Your task to perform on an android device: change the upload size in google photos Image 0: 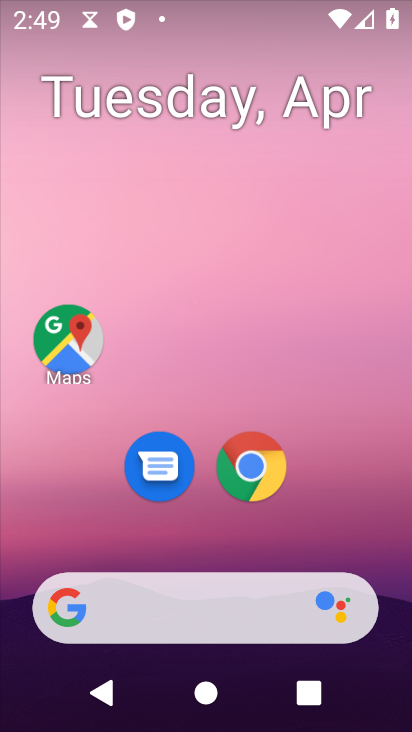
Step 0: drag from (312, 257) to (281, 98)
Your task to perform on an android device: change the upload size in google photos Image 1: 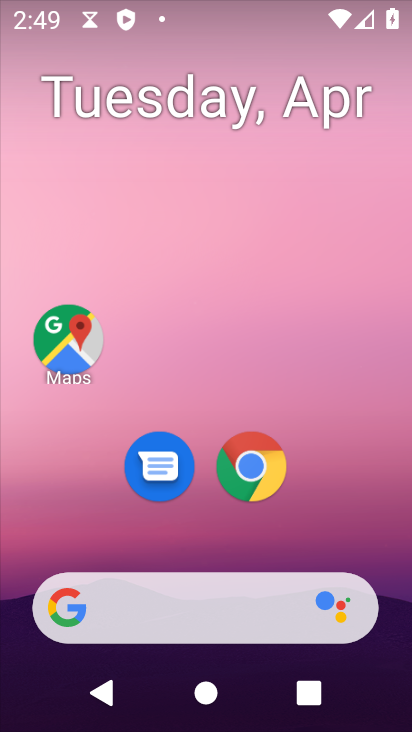
Step 1: drag from (393, 629) to (237, 30)
Your task to perform on an android device: change the upload size in google photos Image 2: 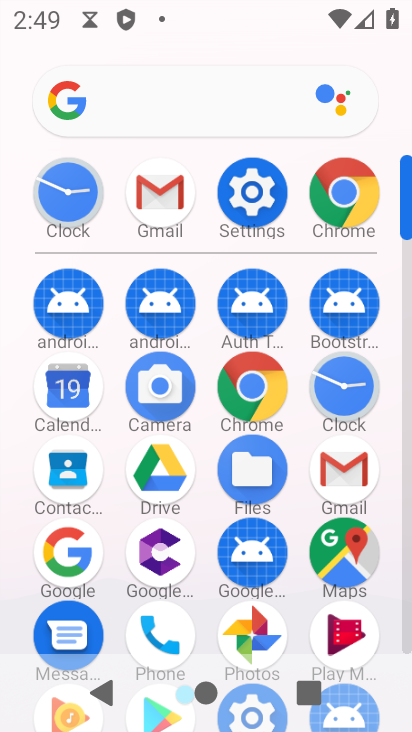
Step 2: drag from (0, 552) to (0, 335)
Your task to perform on an android device: change the upload size in google photos Image 3: 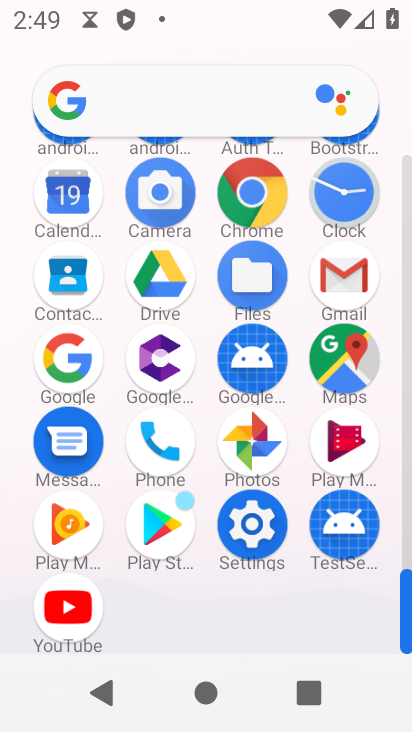
Step 3: drag from (18, 248) to (11, 441)
Your task to perform on an android device: change the upload size in google photos Image 4: 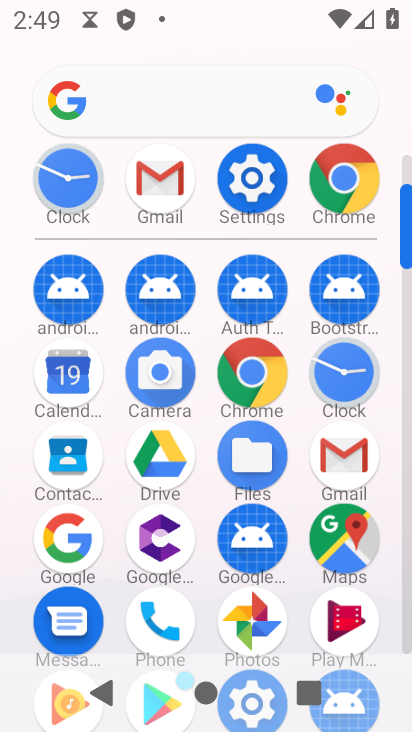
Step 4: drag from (10, 394) to (15, 193)
Your task to perform on an android device: change the upload size in google photos Image 5: 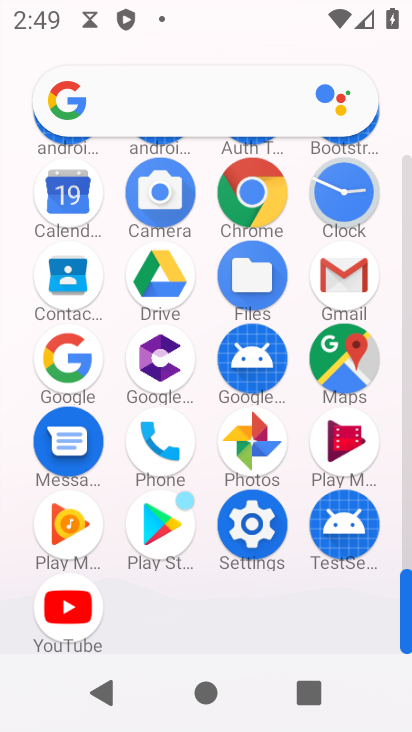
Step 5: drag from (10, 324) to (16, 107)
Your task to perform on an android device: change the upload size in google photos Image 6: 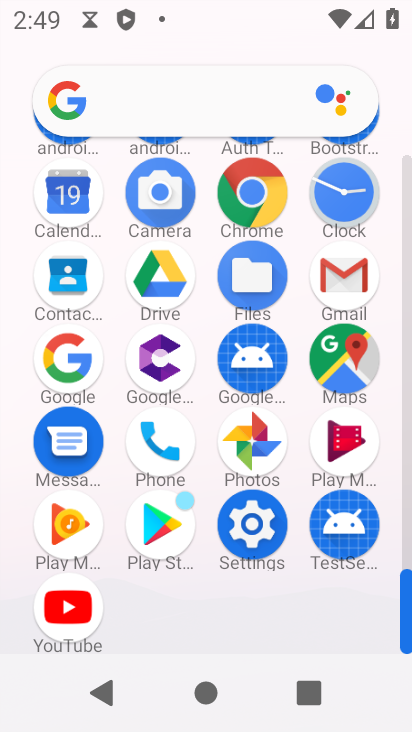
Step 6: drag from (16, 241) to (7, 387)
Your task to perform on an android device: change the upload size in google photos Image 7: 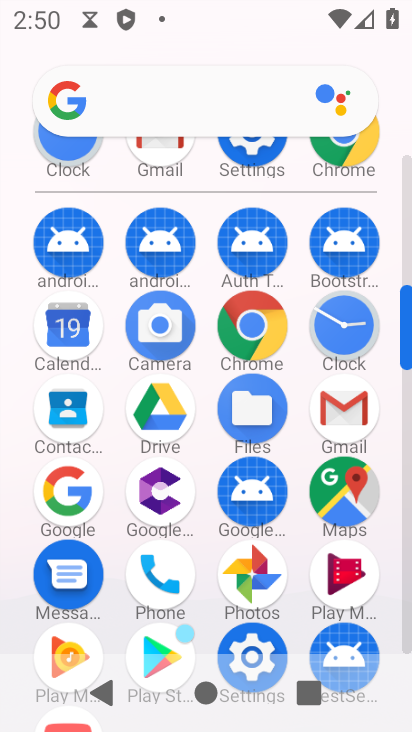
Step 7: click (248, 575)
Your task to perform on an android device: change the upload size in google photos Image 8: 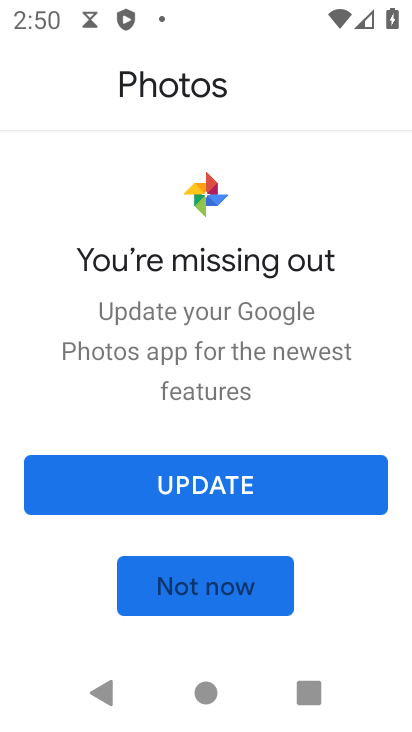
Step 8: click (230, 577)
Your task to perform on an android device: change the upload size in google photos Image 9: 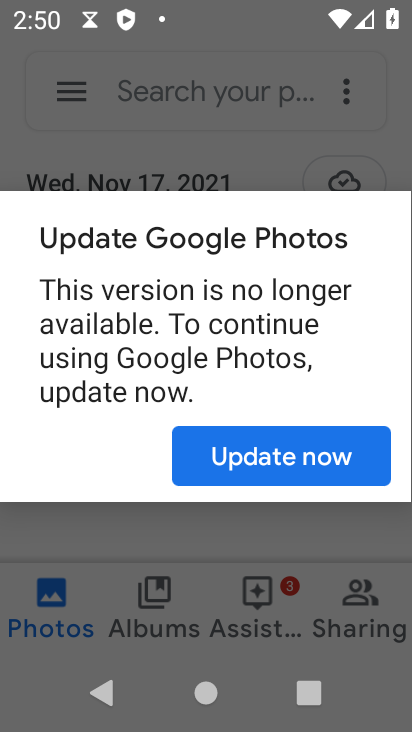
Step 9: click (306, 461)
Your task to perform on an android device: change the upload size in google photos Image 10: 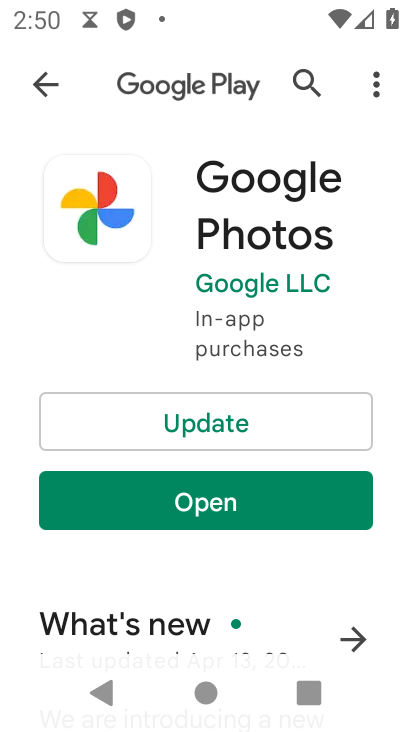
Step 10: click (223, 429)
Your task to perform on an android device: change the upload size in google photos Image 11: 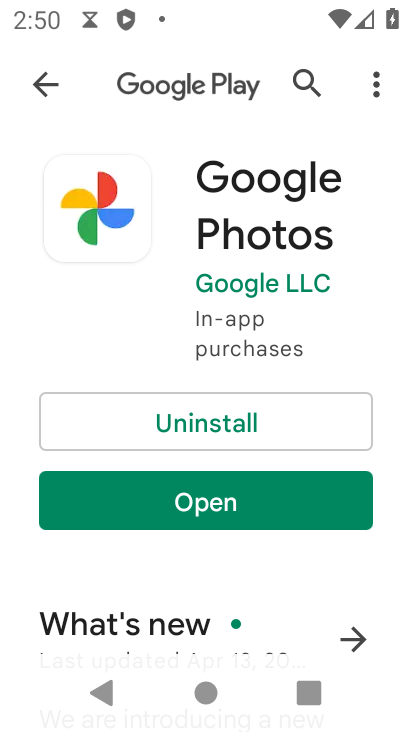
Step 11: click (253, 508)
Your task to perform on an android device: change the upload size in google photos Image 12: 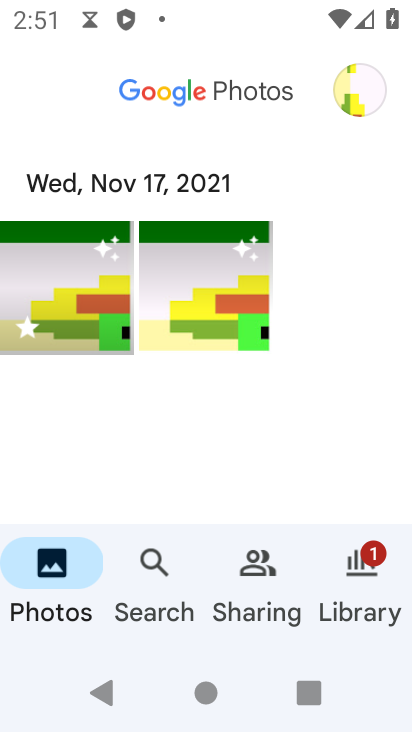
Step 12: click (374, 99)
Your task to perform on an android device: change the upload size in google photos Image 13: 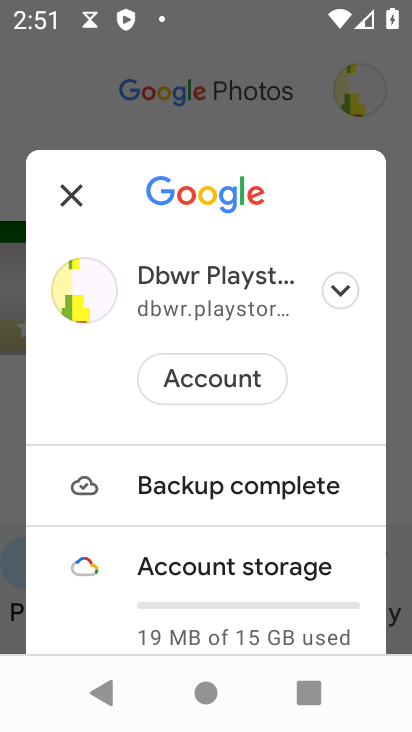
Step 13: drag from (251, 532) to (240, 211)
Your task to perform on an android device: change the upload size in google photos Image 14: 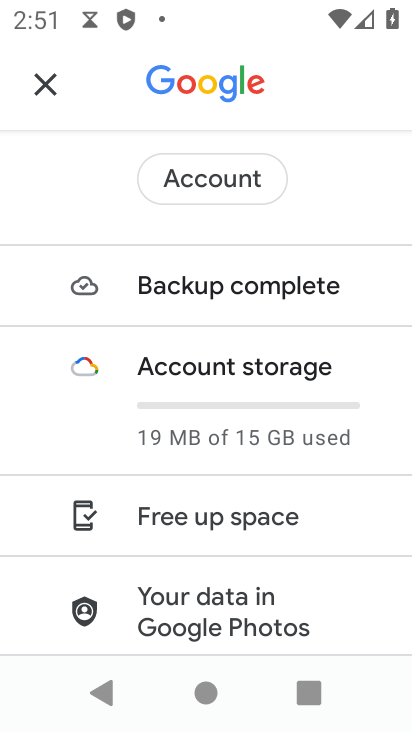
Step 14: drag from (240, 554) to (246, 230)
Your task to perform on an android device: change the upload size in google photos Image 15: 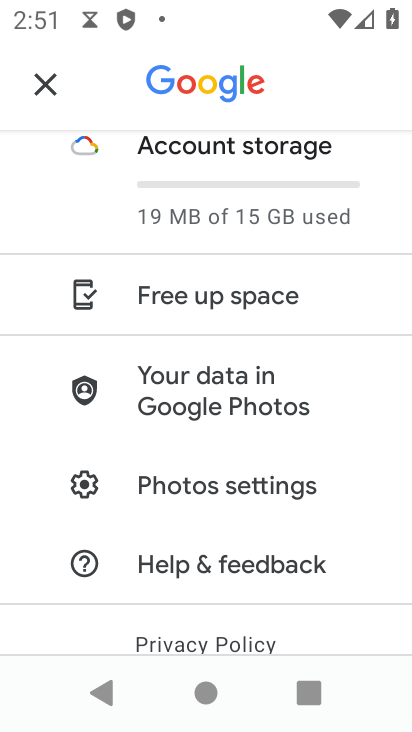
Step 15: drag from (235, 504) to (255, 239)
Your task to perform on an android device: change the upload size in google photos Image 16: 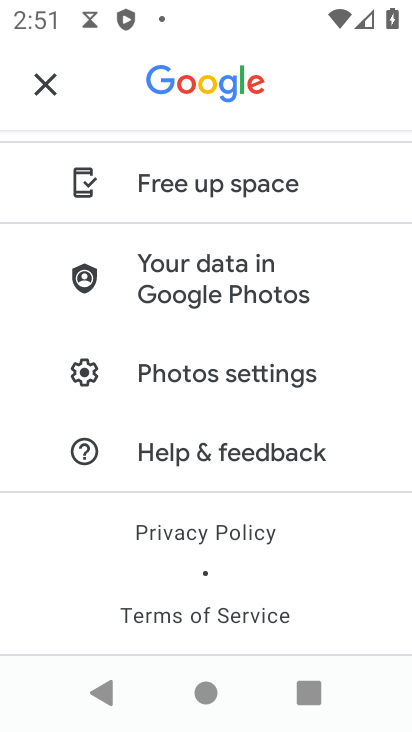
Step 16: click (212, 371)
Your task to perform on an android device: change the upload size in google photos Image 17: 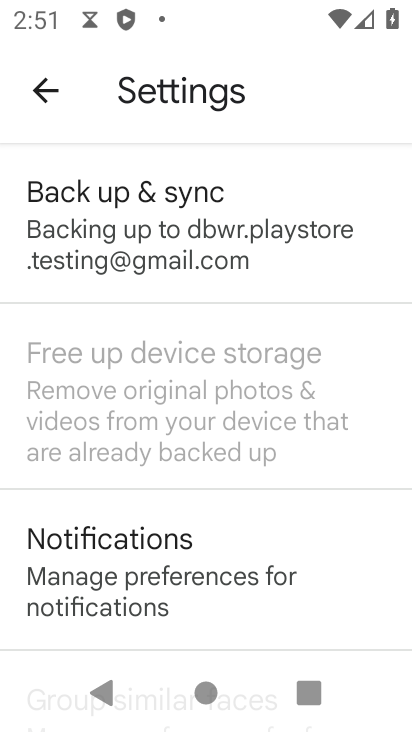
Step 17: drag from (200, 587) to (215, 173)
Your task to perform on an android device: change the upload size in google photos Image 18: 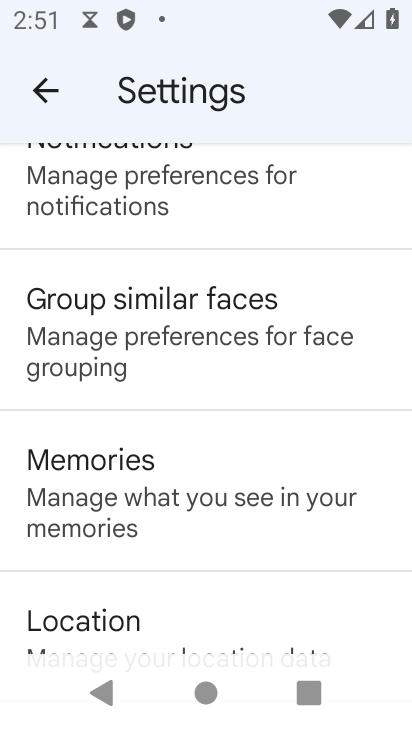
Step 18: drag from (204, 501) to (205, 168)
Your task to perform on an android device: change the upload size in google photos Image 19: 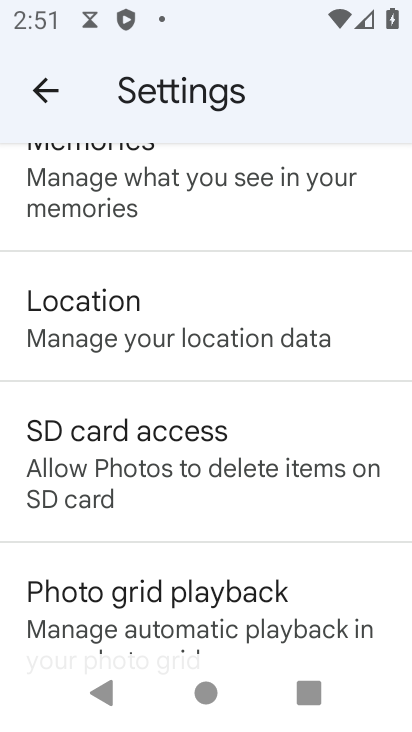
Step 19: drag from (168, 528) to (192, 173)
Your task to perform on an android device: change the upload size in google photos Image 20: 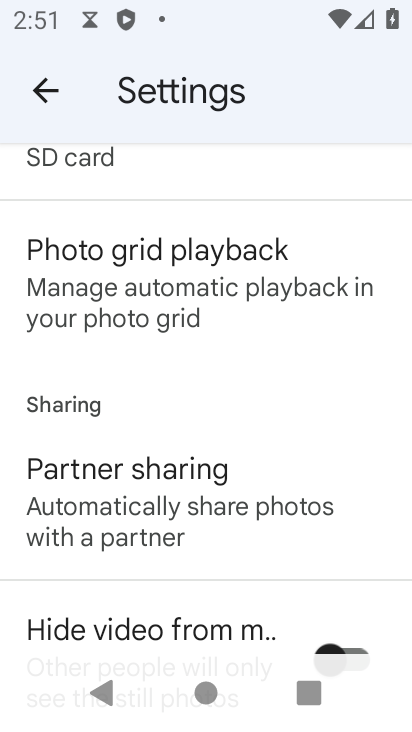
Step 20: drag from (190, 519) to (218, 189)
Your task to perform on an android device: change the upload size in google photos Image 21: 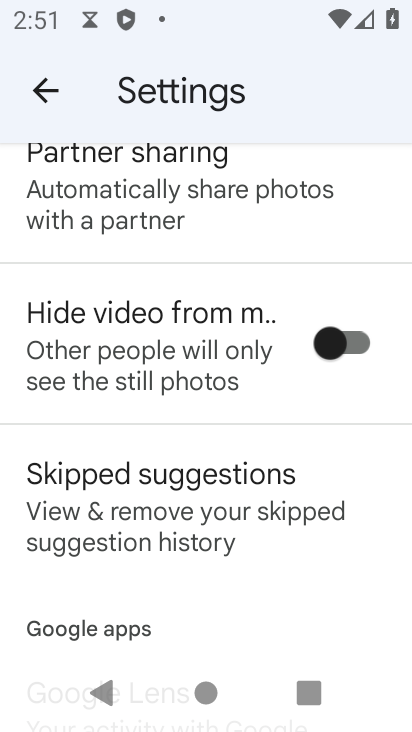
Step 21: drag from (174, 539) to (193, 169)
Your task to perform on an android device: change the upload size in google photos Image 22: 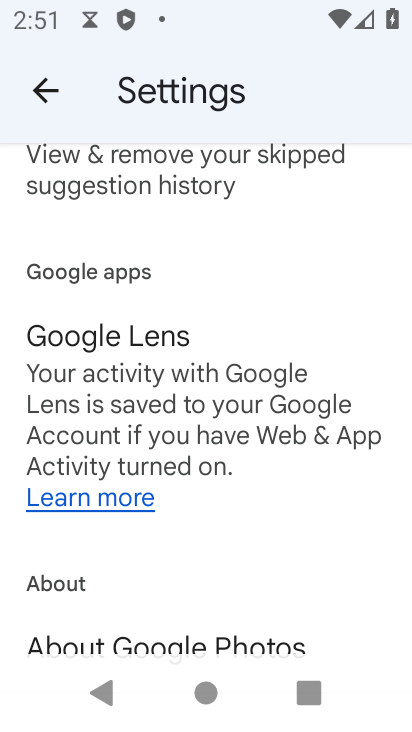
Step 22: drag from (182, 251) to (179, 618)
Your task to perform on an android device: change the upload size in google photos Image 23: 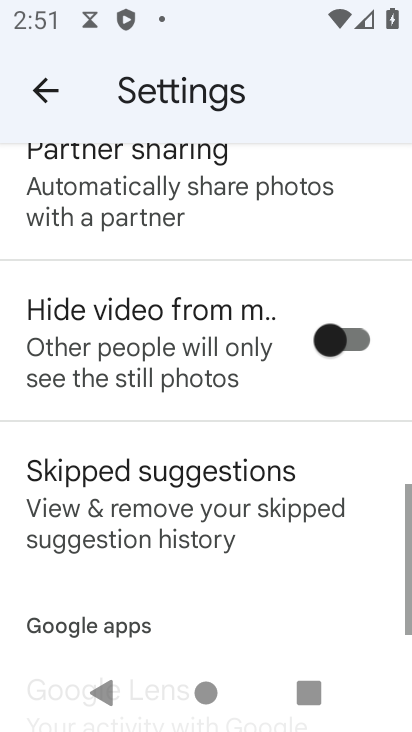
Step 23: drag from (184, 240) to (185, 598)
Your task to perform on an android device: change the upload size in google photos Image 24: 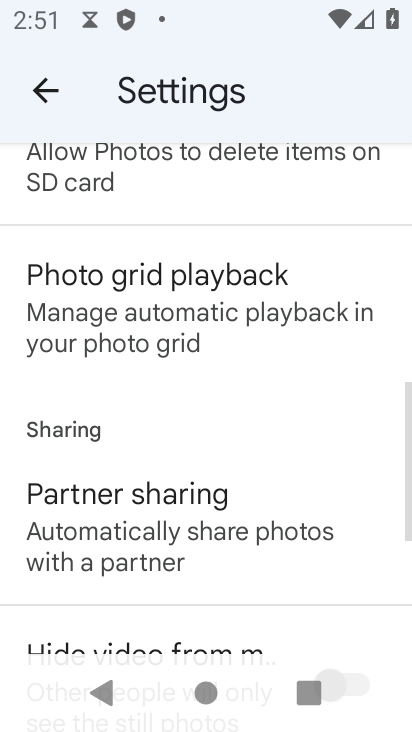
Step 24: drag from (173, 370) to (169, 642)
Your task to perform on an android device: change the upload size in google photos Image 25: 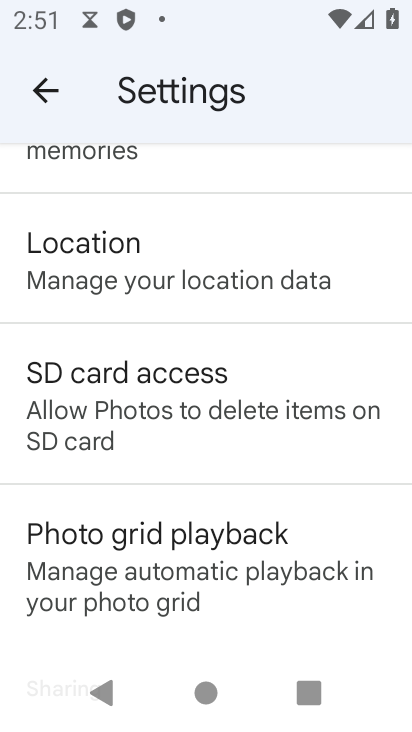
Step 25: drag from (173, 345) to (161, 592)
Your task to perform on an android device: change the upload size in google photos Image 26: 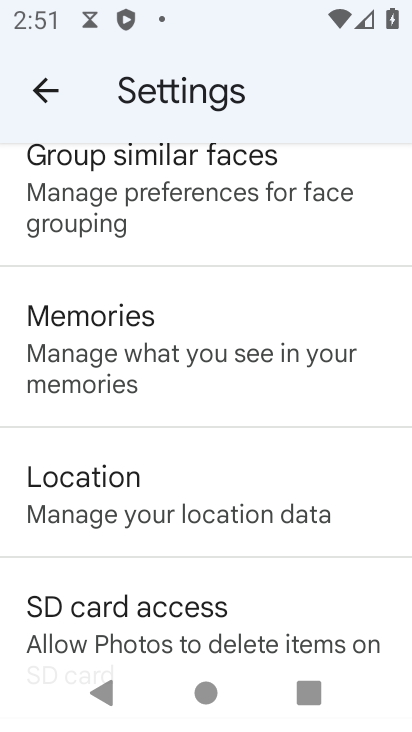
Step 26: drag from (181, 284) to (175, 483)
Your task to perform on an android device: change the upload size in google photos Image 27: 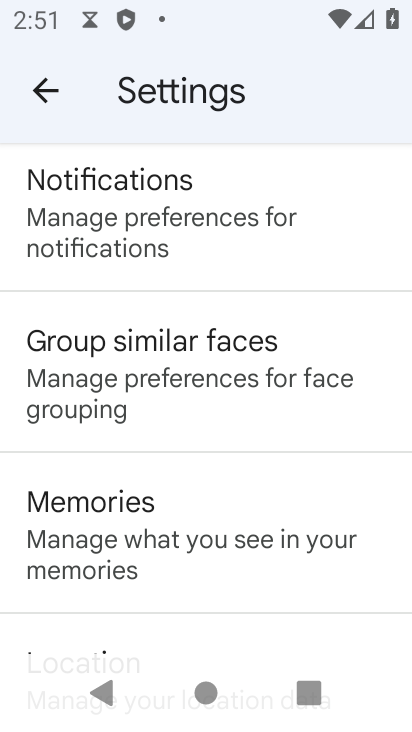
Step 27: drag from (180, 201) to (172, 538)
Your task to perform on an android device: change the upload size in google photos Image 28: 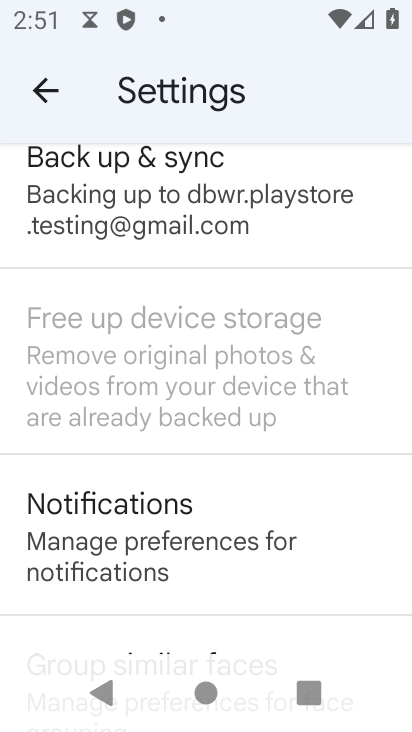
Step 28: drag from (179, 207) to (172, 442)
Your task to perform on an android device: change the upload size in google photos Image 29: 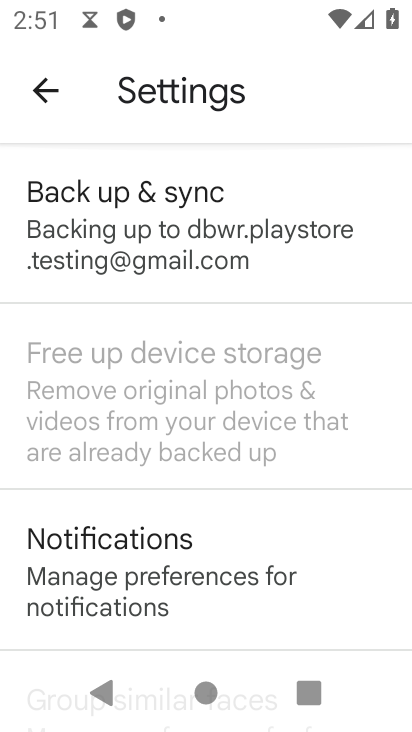
Step 29: click (217, 216)
Your task to perform on an android device: change the upload size in google photos Image 30: 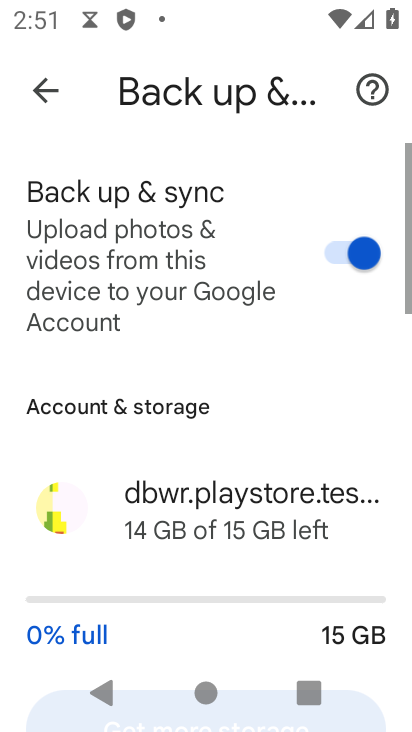
Step 30: drag from (208, 475) to (188, 151)
Your task to perform on an android device: change the upload size in google photos Image 31: 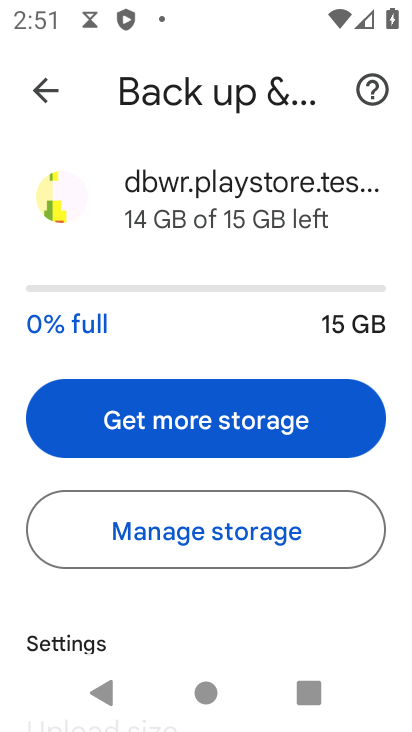
Step 31: drag from (157, 515) to (170, 204)
Your task to perform on an android device: change the upload size in google photos Image 32: 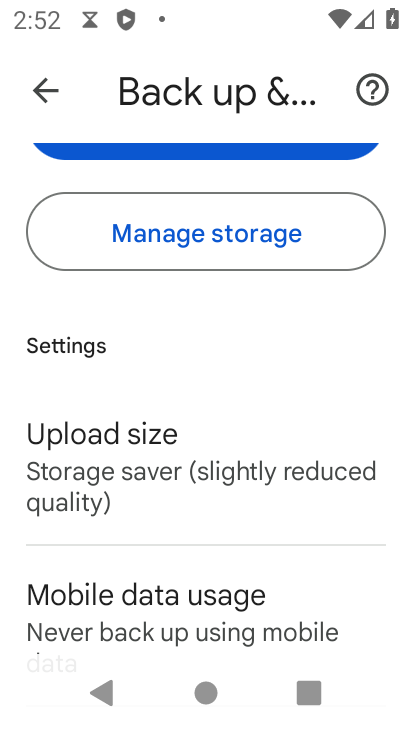
Step 32: drag from (194, 502) to (209, 195)
Your task to perform on an android device: change the upload size in google photos Image 33: 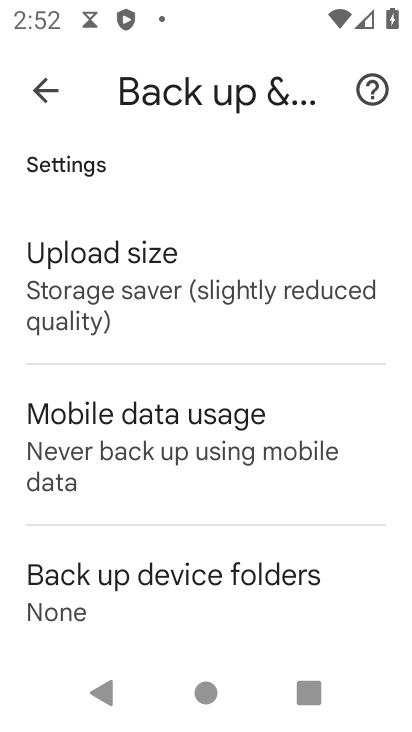
Step 33: click (211, 271)
Your task to perform on an android device: change the upload size in google photos Image 34: 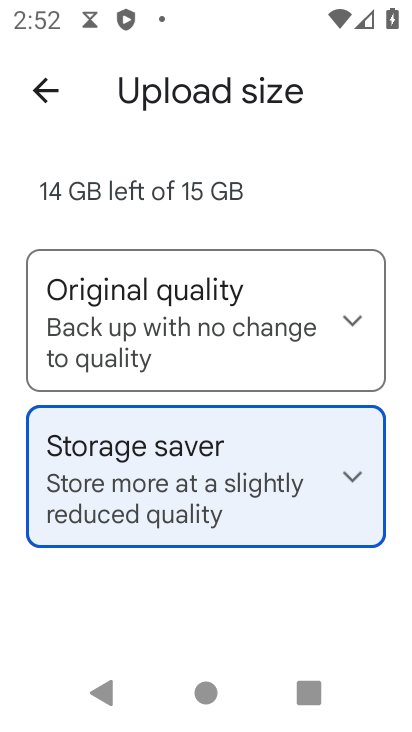
Step 34: click (192, 293)
Your task to perform on an android device: change the upload size in google photos Image 35: 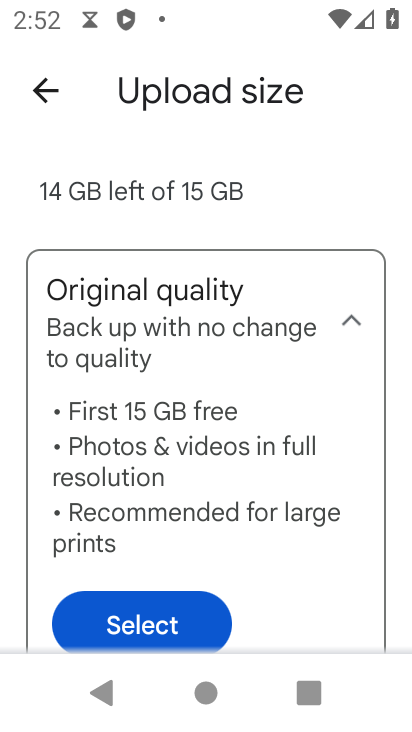
Step 35: click (129, 622)
Your task to perform on an android device: change the upload size in google photos Image 36: 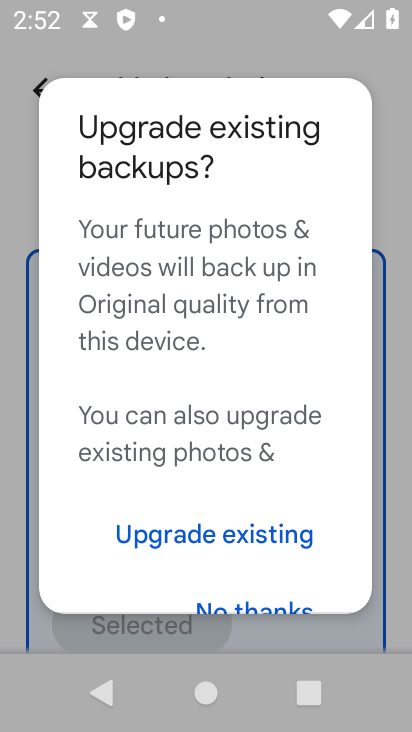
Step 36: click (285, 610)
Your task to perform on an android device: change the upload size in google photos Image 37: 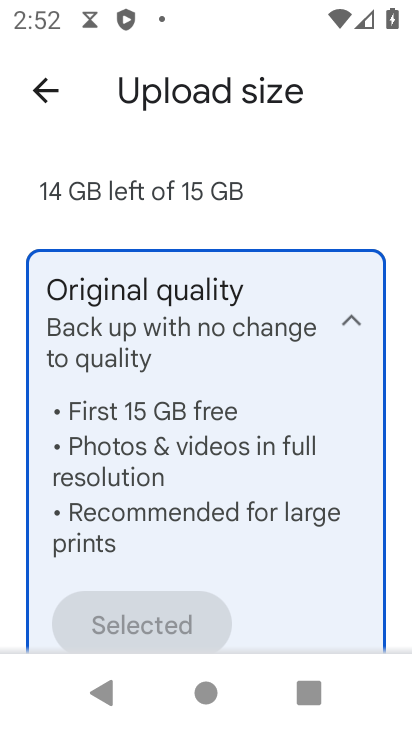
Step 37: task complete